Your task to perform on an android device: turn vacation reply on in the gmail app Image 0: 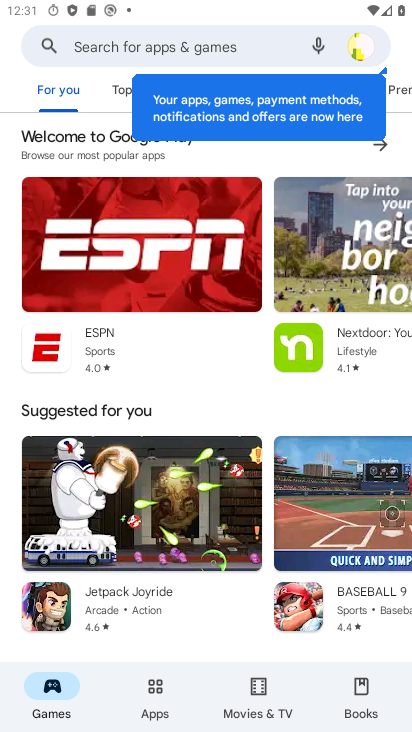
Step 0: press home button
Your task to perform on an android device: turn vacation reply on in the gmail app Image 1: 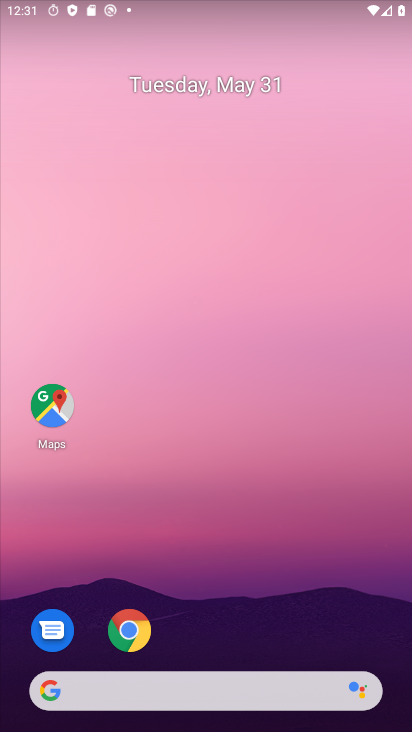
Step 1: drag from (186, 556) to (226, 160)
Your task to perform on an android device: turn vacation reply on in the gmail app Image 2: 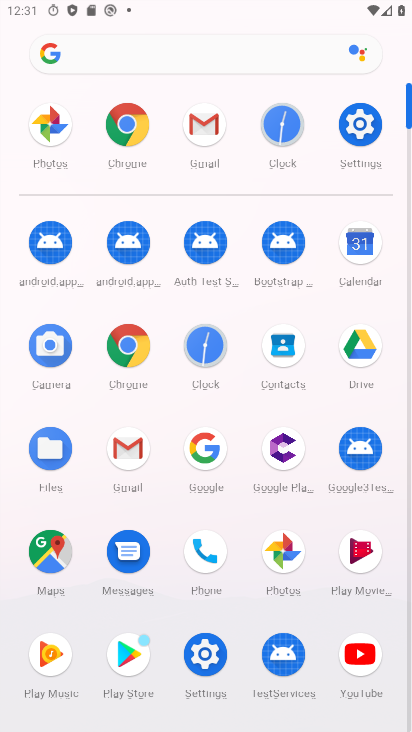
Step 2: click (117, 455)
Your task to perform on an android device: turn vacation reply on in the gmail app Image 3: 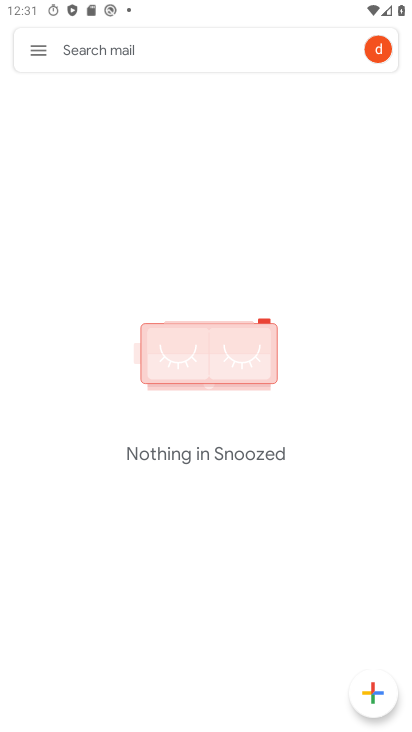
Step 3: click (33, 49)
Your task to perform on an android device: turn vacation reply on in the gmail app Image 4: 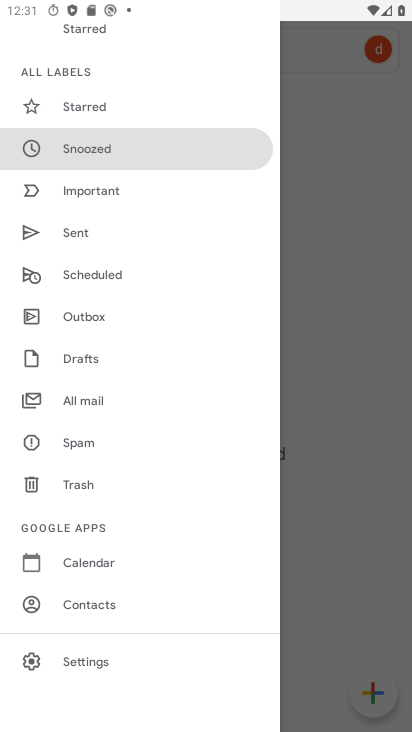
Step 4: click (94, 669)
Your task to perform on an android device: turn vacation reply on in the gmail app Image 5: 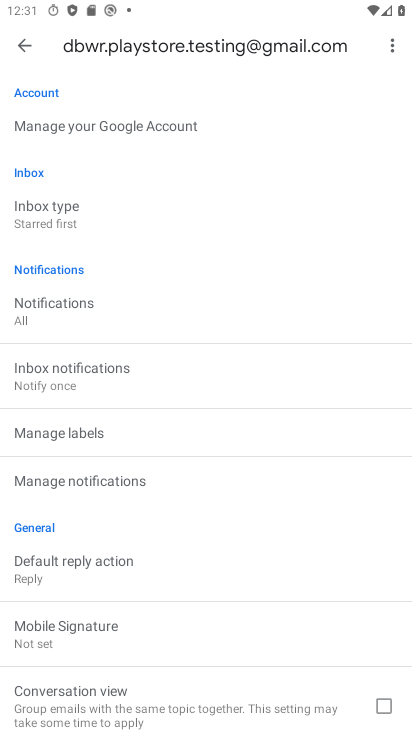
Step 5: drag from (64, 644) to (151, 252)
Your task to perform on an android device: turn vacation reply on in the gmail app Image 6: 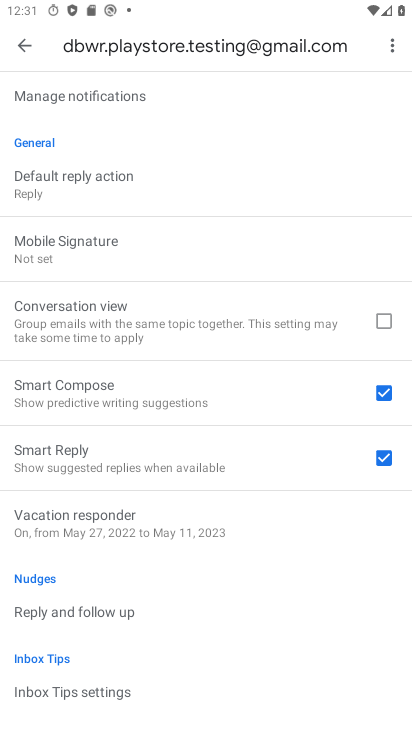
Step 6: click (151, 524)
Your task to perform on an android device: turn vacation reply on in the gmail app Image 7: 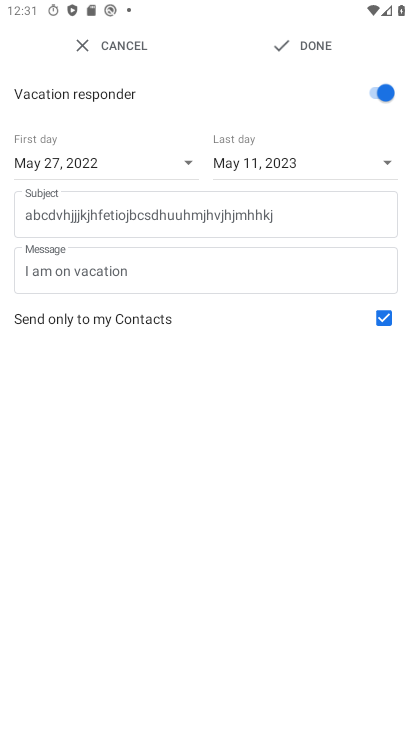
Step 7: task complete